Your task to perform on an android device: turn off airplane mode Image 0: 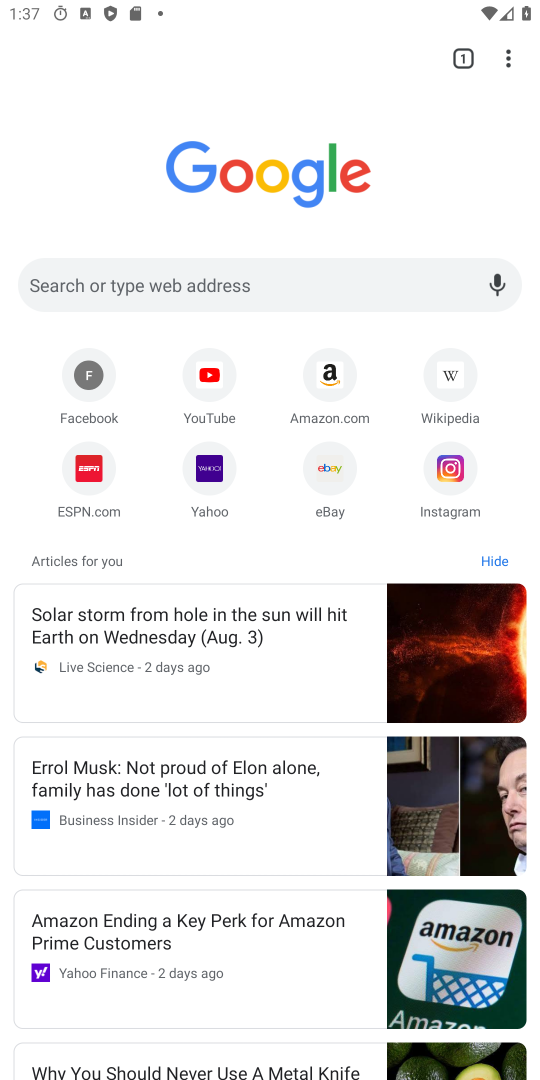
Step 0: press home button
Your task to perform on an android device: turn off airplane mode Image 1: 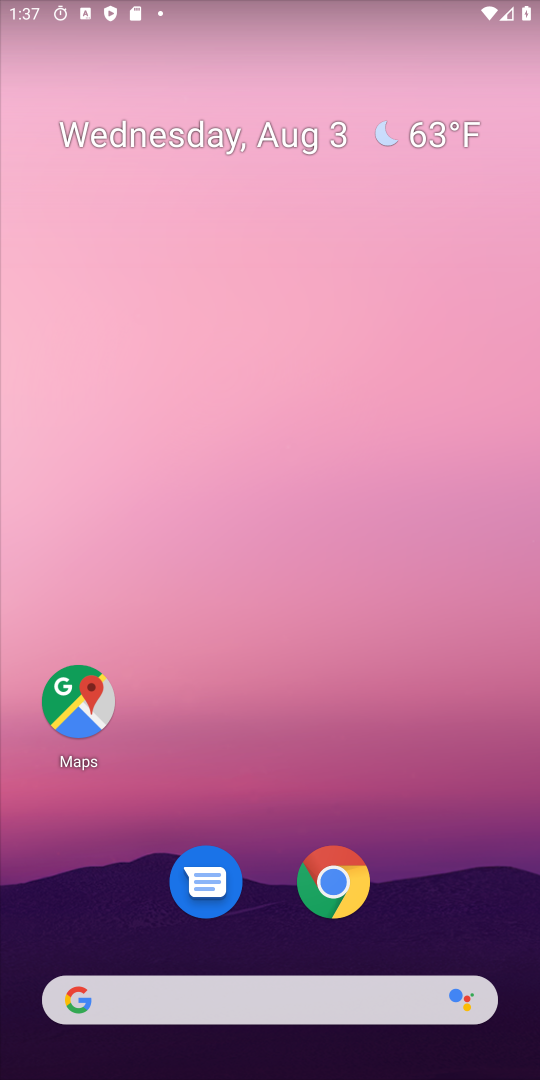
Step 1: drag from (315, 703) to (378, 22)
Your task to perform on an android device: turn off airplane mode Image 2: 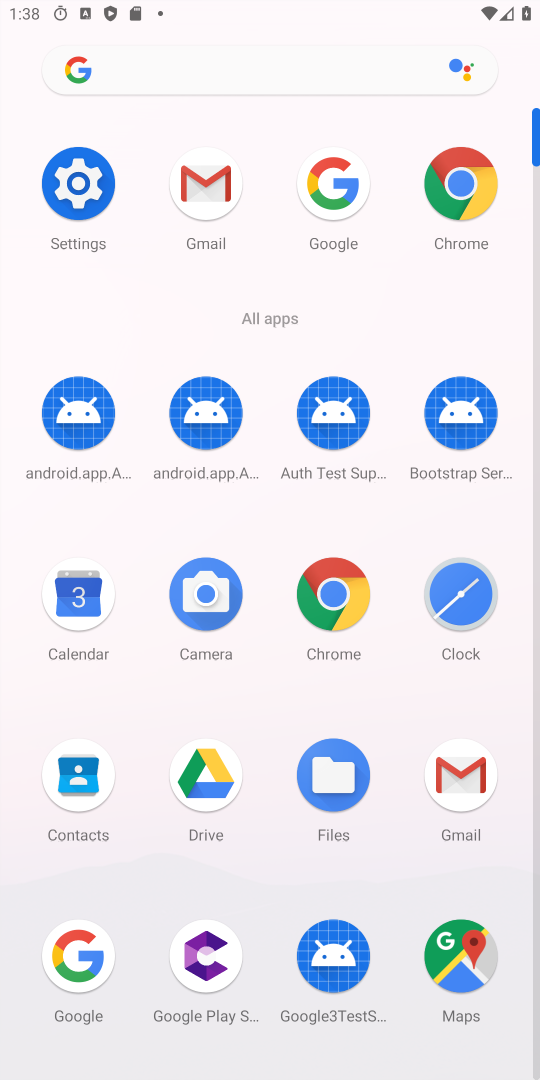
Step 2: click (76, 221)
Your task to perform on an android device: turn off airplane mode Image 3: 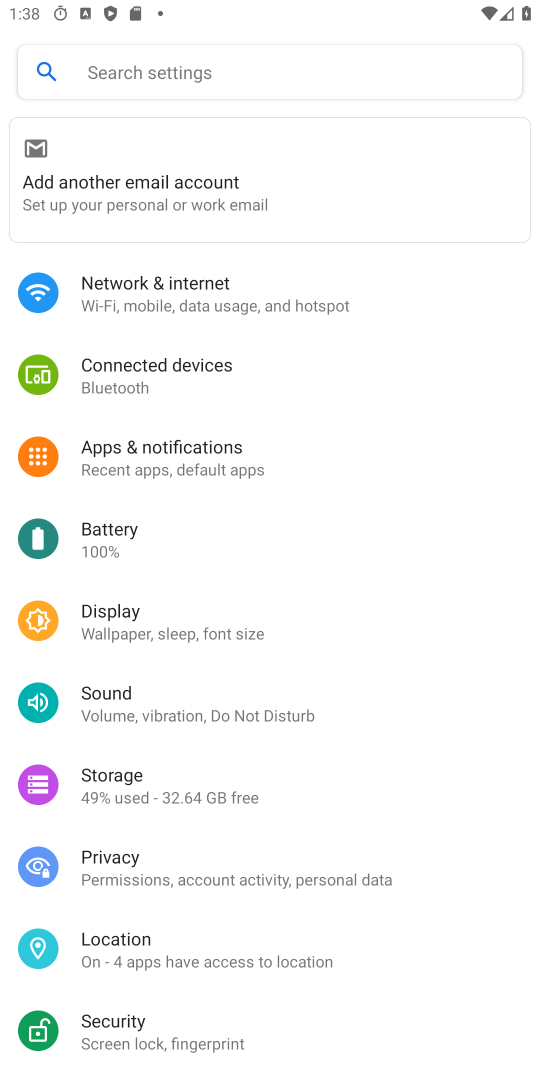
Step 3: click (228, 303)
Your task to perform on an android device: turn off airplane mode Image 4: 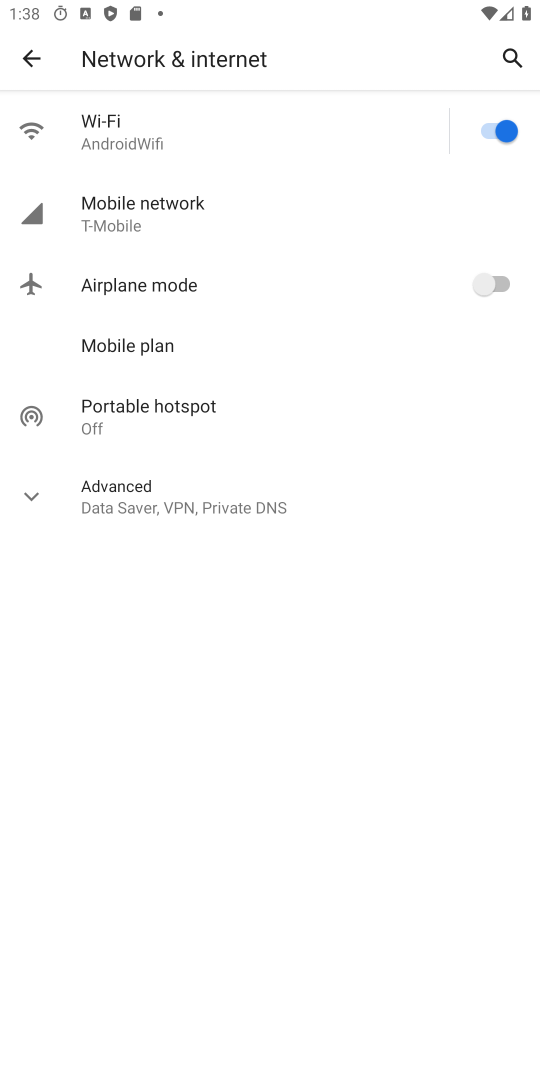
Step 4: task complete